Your task to perform on an android device: turn off notifications in google photos Image 0: 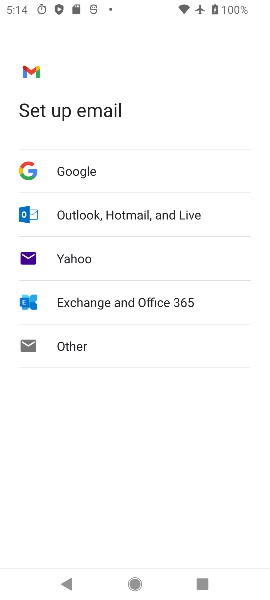
Step 0: press back button
Your task to perform on an android device: turn off notifications in google photos Image 1: 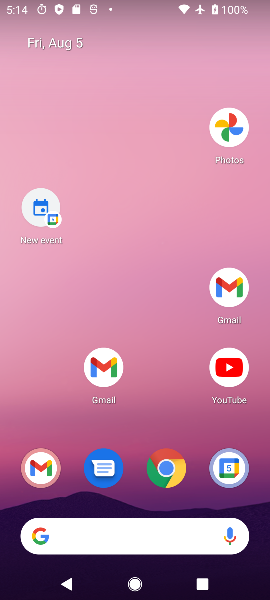
Step 1: drag from (166, 523) to (102, 166)
Your task to perform on an android device: turn off notifications in google photos Image 2: 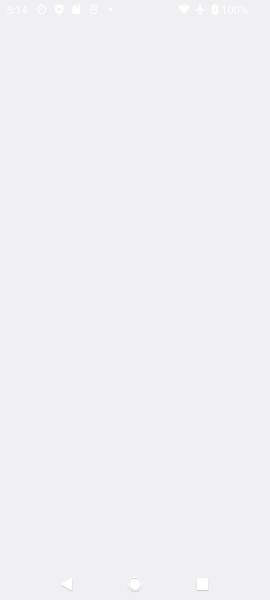
Step 2: drag from (138, 375) to (148, 38)
Your task to perform on an android device: turn off notifications in google photos Image 3: 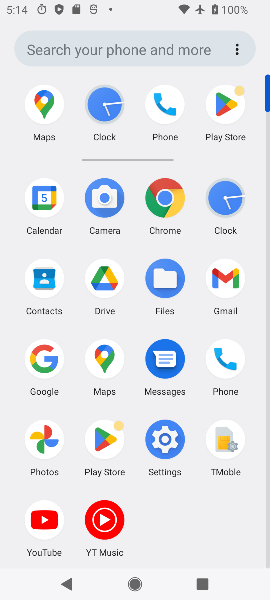
Step 3: click (46, 442)
Your task to perform on an android device: turn off notifications in google photos Image 4: 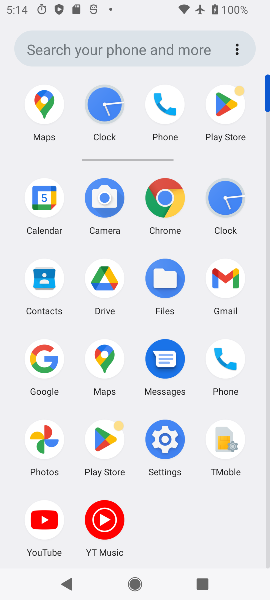
Step 4: click (46, 442)
Your task to perform on an android device: turn off notifications in google photos Image 5: 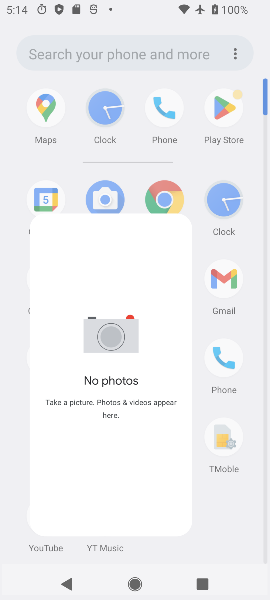
Step 5: click (49, 446)
Your task to perform on an android device: turn off notifications in google photos Image 6: 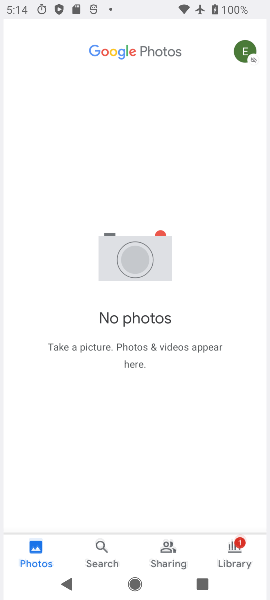
Step 6: click (49, 446)
Your task to perform on an android device: turn off notifications in google photos Image 7: 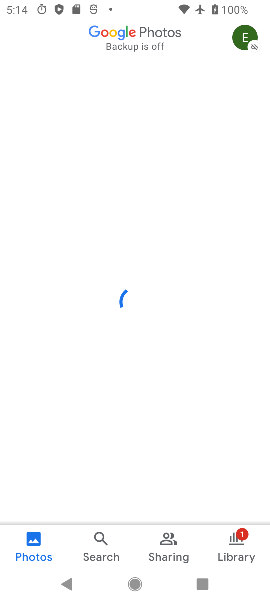
Step 7: click (49, 446)
Your task to perform on an android device: turn off notifications in google photos Image 8: 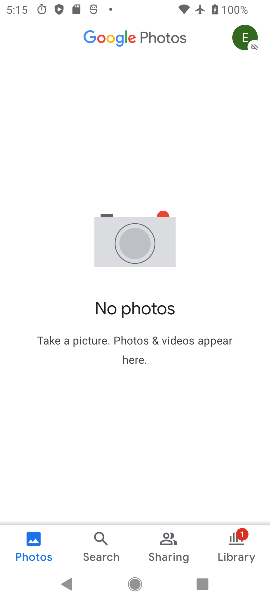
Step 8: click (240, 41)
Your task to perform on an android device: turn off notifications in google photos Image 9: 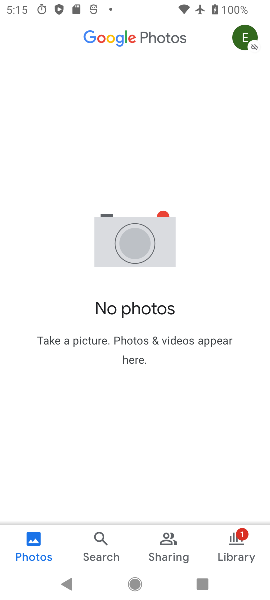
Step 9: click (244, 45)
Your task to perform on an android device: turn off notifications in google photos Image 10: 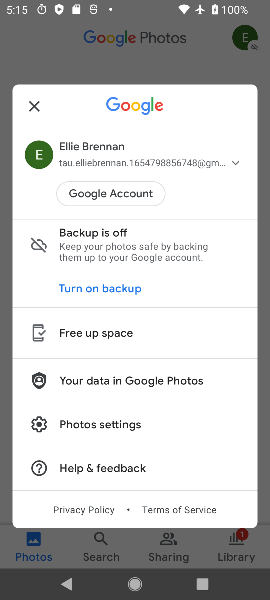
Step 10: click (259, 40)
Your task to perform on an android device: turn off notifications in google photos Image 11: 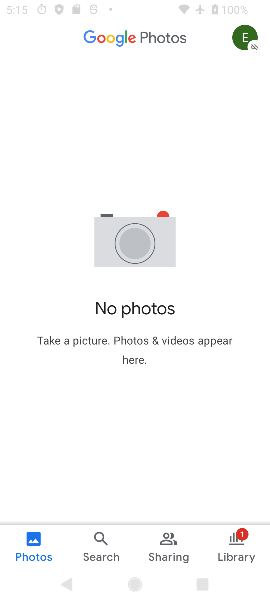
Step 11: click (260, 41)
Your task to perform on an android device: turn off notifications in google photos Image 12: 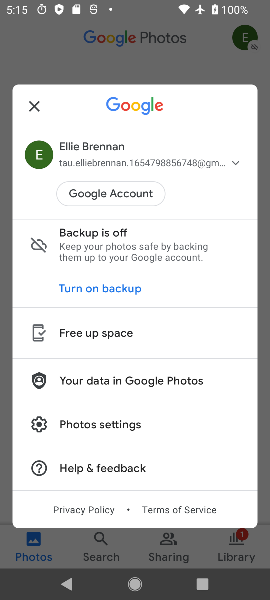
Step 12: click (108, 425)
Your task to perform on an android device: turn off notifications in google photos Image 13: 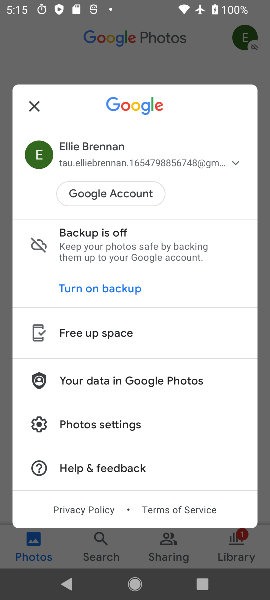
Step 13: click (108, 425)
Your task to perform on an android device: turn off notifications in google photos Image 14: 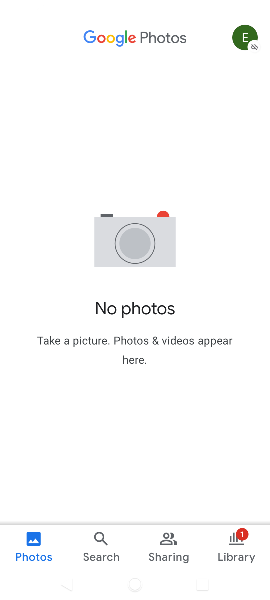
Step 14: click (108, 425)
Your task to perform on an android device: turn off notifications in google photos Image 15: 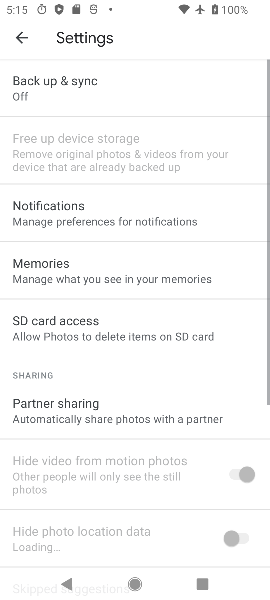
Step 15: click (108, 425)
Your task to perform on an android device: turn off notifications in google photos Image 16: 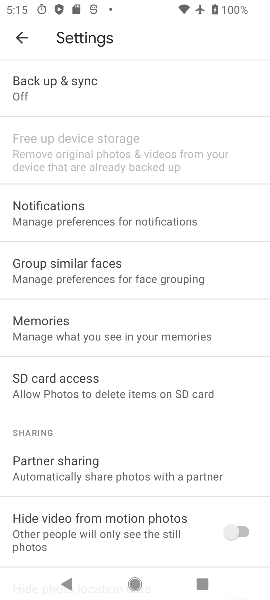
Step 16: click (79, 221)
Your task to perform on an android device: turn off notifications in google photos Image 17: 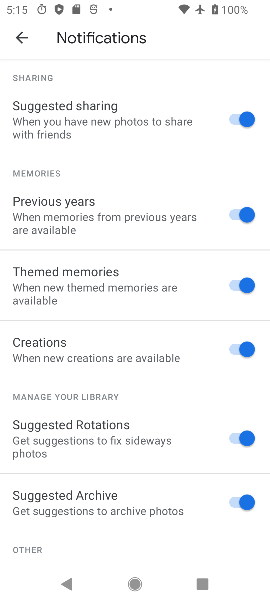
Step 17: drag from (100, 356) to (86, 189)
Your task to perform on an android device: turn off notifications in google photos Image 18: 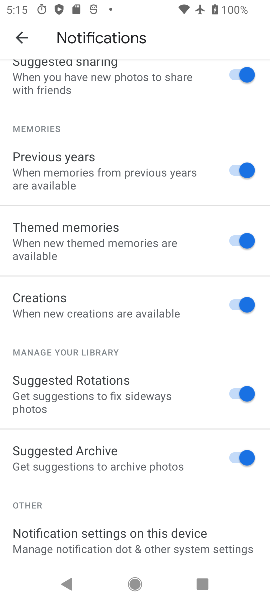
Step 18: drag from (87, 187) to (121, 474)
Your task to perform on an android device: turn off notifications in google photos Image 19: 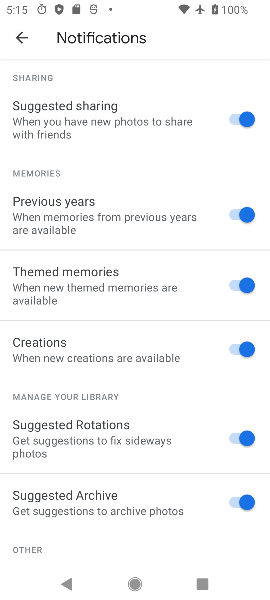
Step 19: click (19, 32)
Your task to perform on an android device: turn off notifications in google photos Image 20: 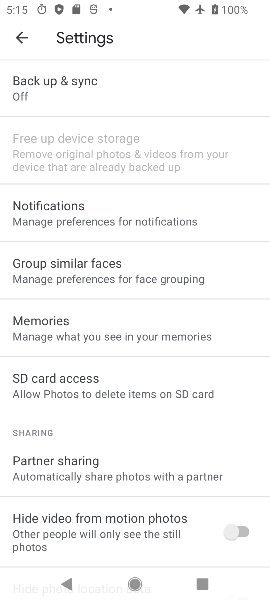
Step 20: drag from (81, 134) to (81, 405)
Your task to perform on an android device: turn off notifications in google photos Image 21: 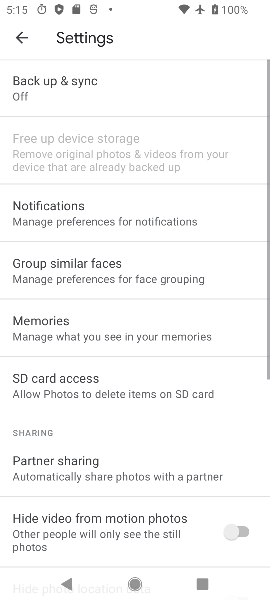
Step 21: click (61, 217)
Your task to perform on an android device: turn off notifications in google photos Image 22: 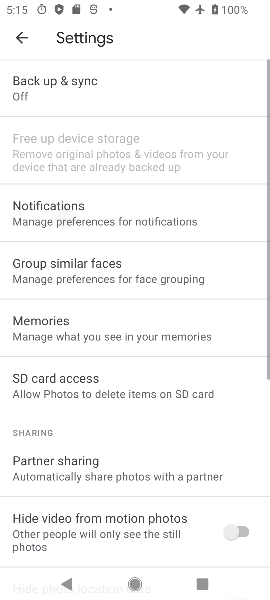
Step 22: click (61, 217)
Your task to perform on an android device: turn off notifications in google photos Image 23: 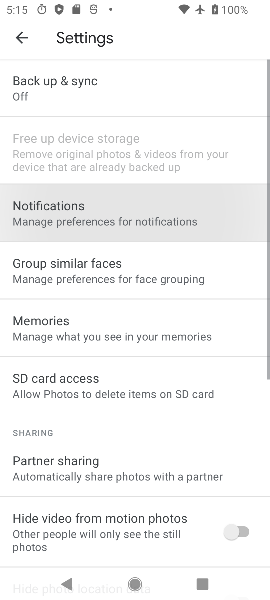
Step 23: click (61, 217)
Your task to perform on an android device: turn off notifications in google photos Image 24: 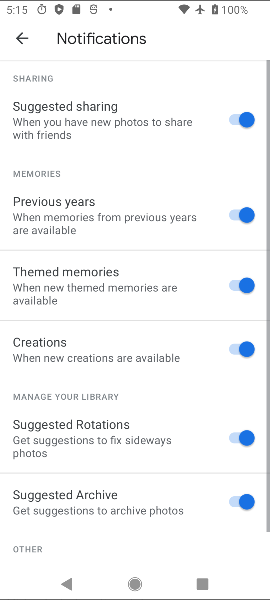
Step 24: click (61, 217)
Your task to perform on an android device: turn off notifications in google photos Image 25: 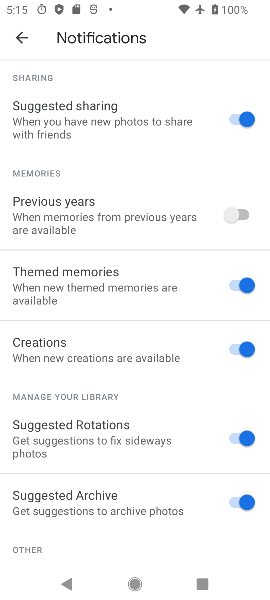
Step 25: drag from (128, 499) to (90, 196)
Your task to perform on an android device: turn off notifications in google photos Image 26: 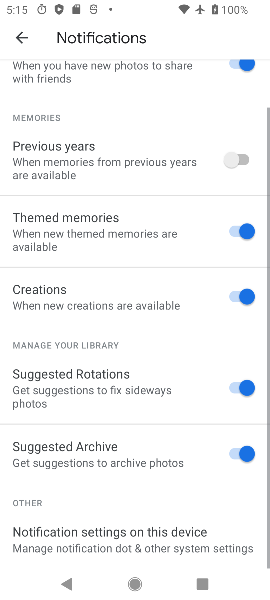
Step 26: drag from (94, 351) to (101, 200)
Your task to perform on an android device: turn off notifications in google photos Image 27: 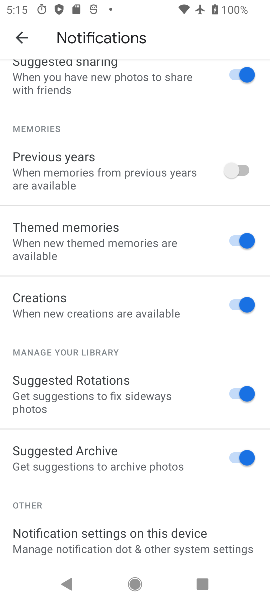
Step 27: click (239, 453)
Your task to perform on an android device: turn off notifications in google photos Image 28: 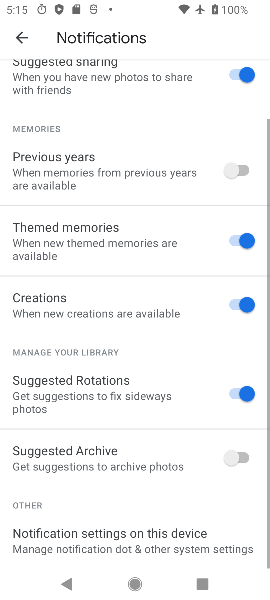
Step 28: click (243, 386)
Your task to perform on an android device: turn off notifications in google photos Image 29: 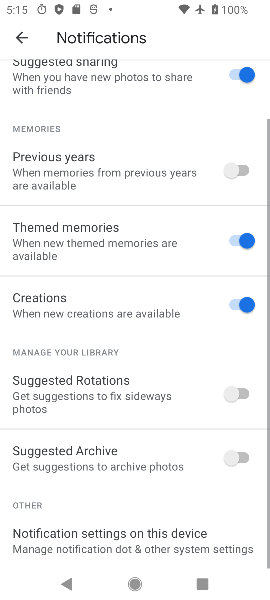
Step 29: click (244, 301)
Your task to perform on an android device: turn off notifications in google photos Image 30: 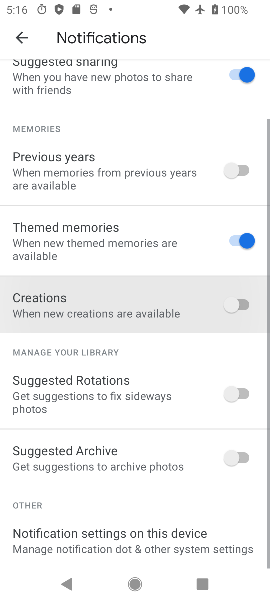
Step 30: click (246, 242)
Your task to perform on an android device: turn off notifications in google photos Image 31: 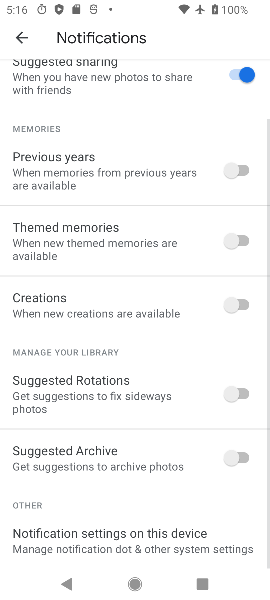
Step 31: click (248, 73)
Your task to perform on an android device: turn off notifications in google photos Image 32: 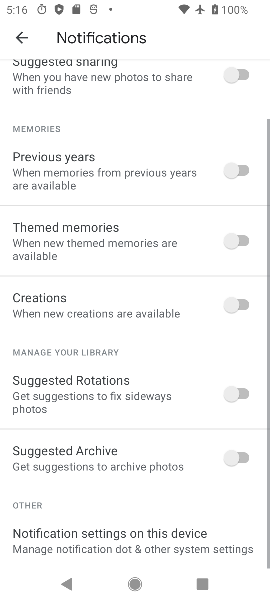
Step 32: task complete